Your task to perform on an android device: show emergency info Image 0: 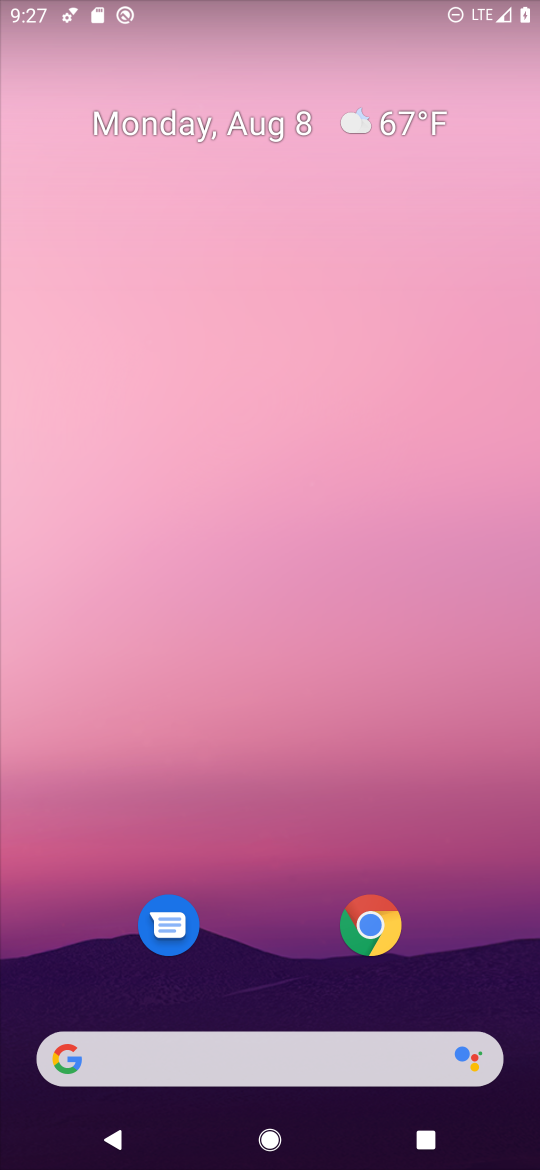
Step 0: drag from (296, 968) to (262, 71)
Your task to perform on an android device: show emergency info Image 1: 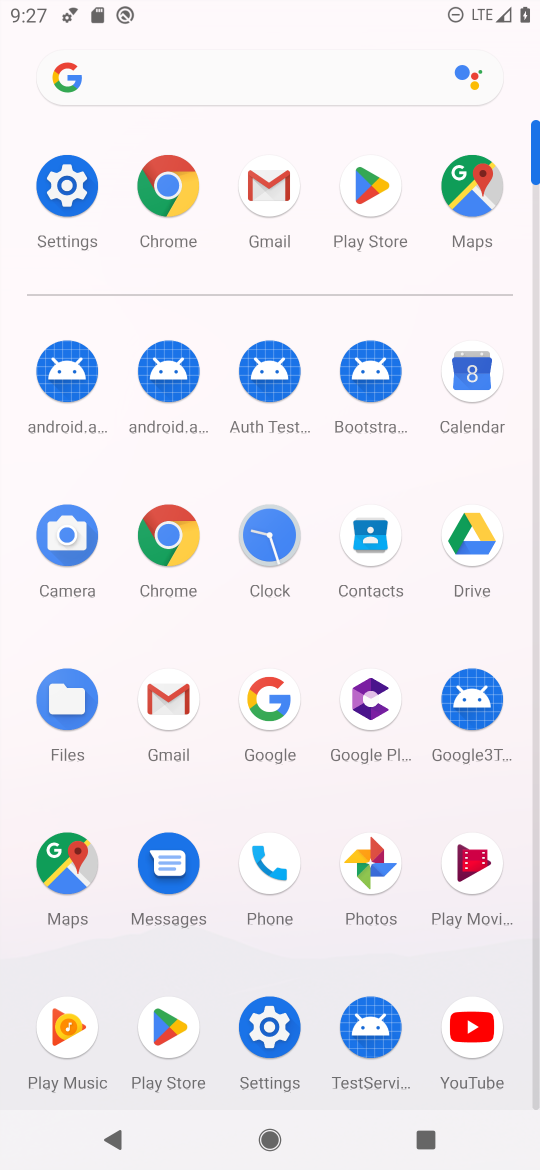
Step 1: click (262, 1026)
Your task to perform on an android device: show emergency info Image 2: 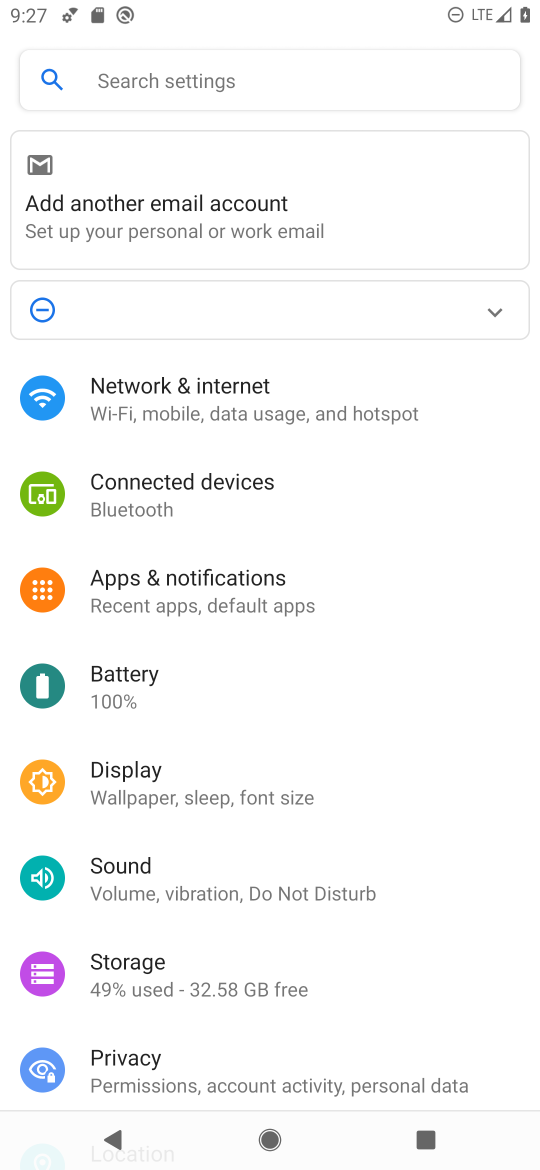
Step 2: drag from (253, 1041) to (509, 12)
Your task to perform on an android device: show emergency info Image 3: 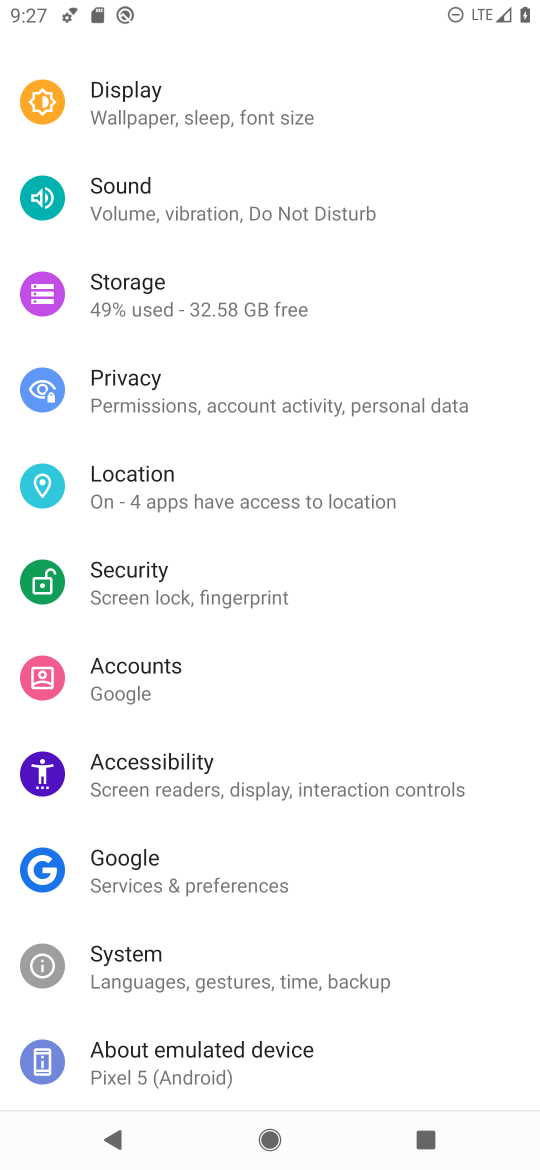
Step 3: drag from (306, 807) to (357, 350)
Your task to perform on an android device: show emergency info Image 4: 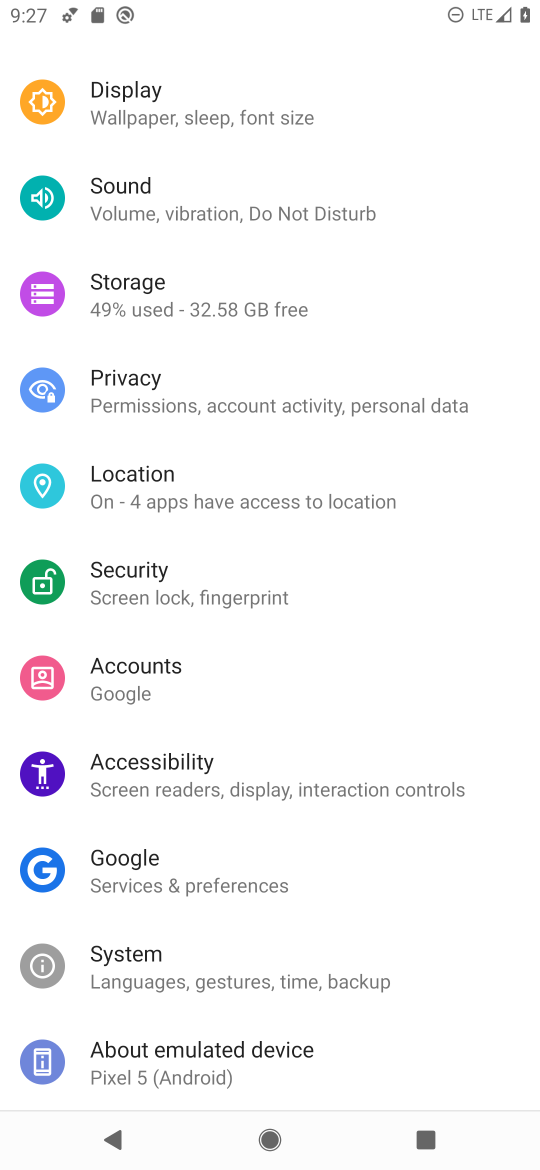
Step 4: click (148, 1083)
Your task to perform on an android device: show emergency info Image 5: 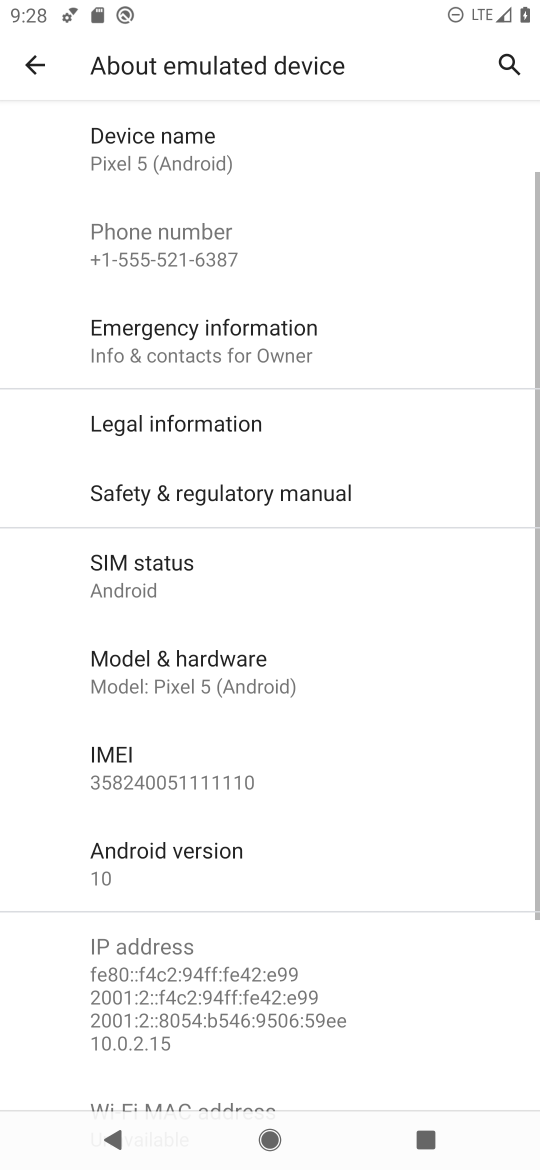
Step 5: click (201, 336)
Your task to perform on an android device: show emergency info Image 6: 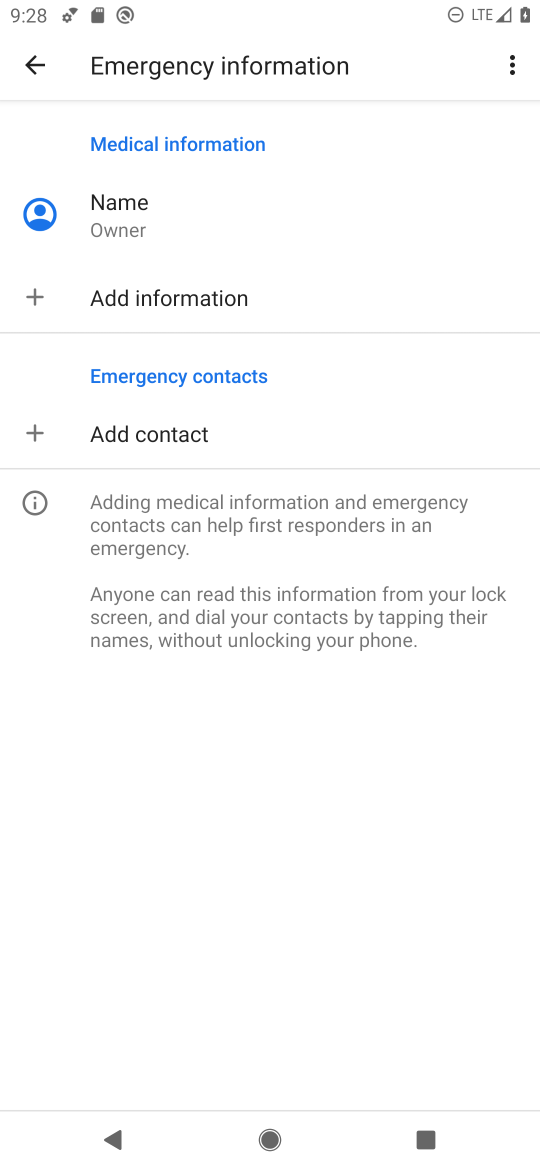
Step 6: task complete